Your task to perform on an android device: toggle notification dots Image 0: 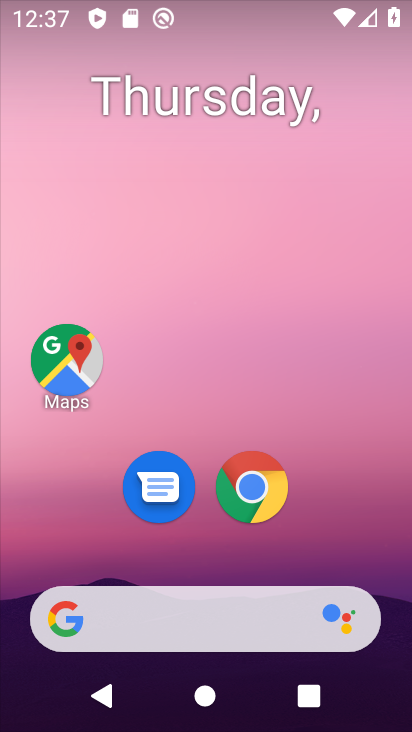
Step 0: press home button
Your task to perform on an android device: toggle notification dots Image 1: 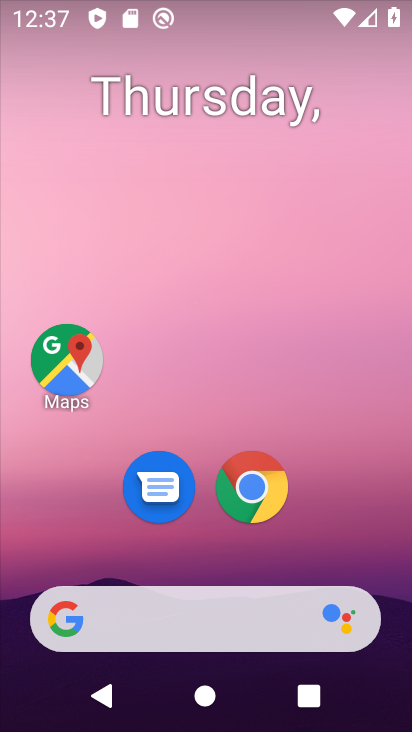
Step 1: drag from (342, 473) to (344, 65)
Your task to perform on an android device: toggle notification dots Image 2: 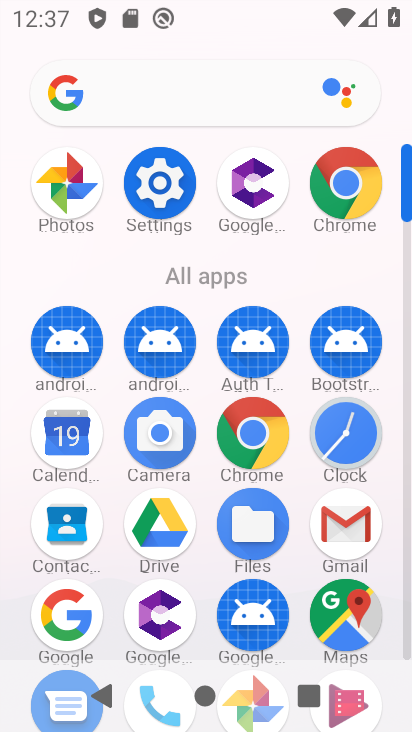
Step 2: click (158, 162)
Your task to perform on an android device: toggle notification dots Image 3: 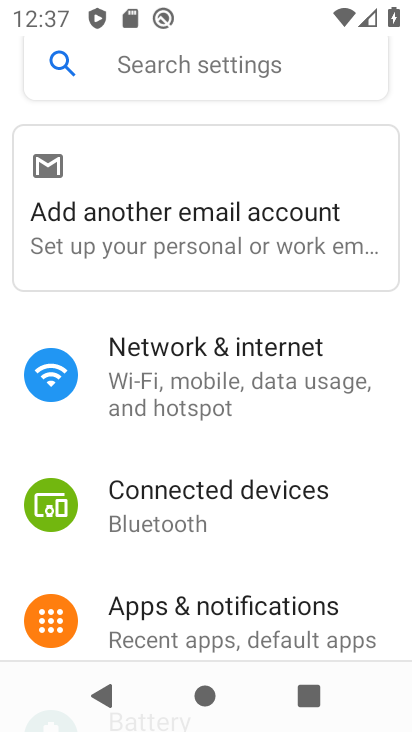
Step 3: drag from (150, 428) to (179, 310)
Your task to perform on an android device: toggle notification dots Image 4: 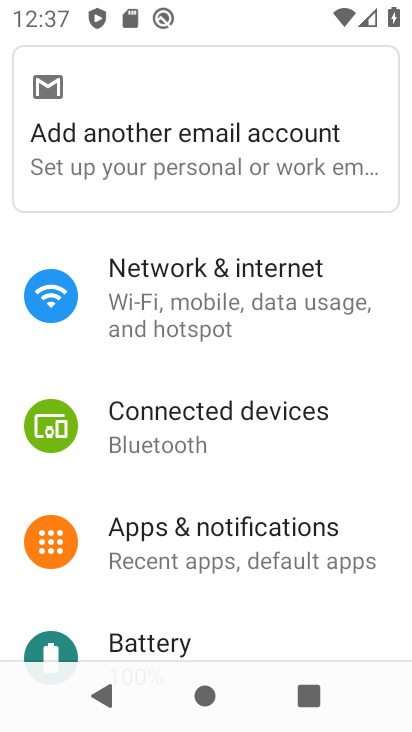
Step 4: drag from (171, 449) to (227, 347)
Your task to perform on an android device: toggle notification dots Image 5: 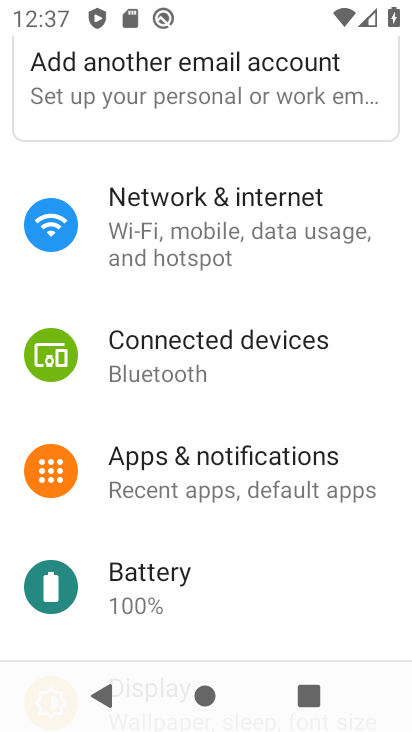
Step 5: click (212, 462)
Your task to perform on an android device: toggle notification dots Image 6: 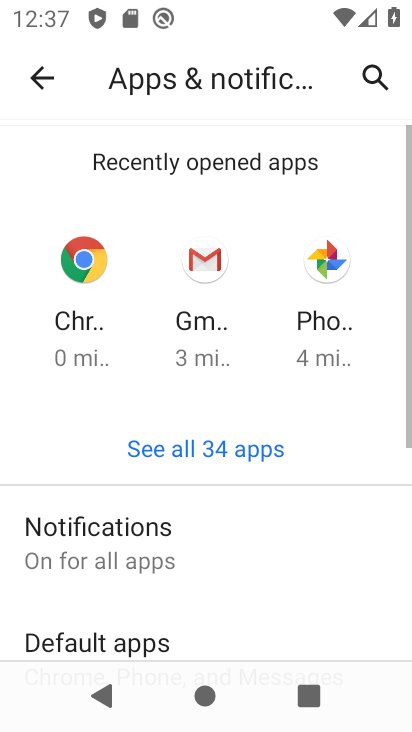
Step 6: click (212, 462)
Your task to perform on an android device: toggle notification dots Image 7: 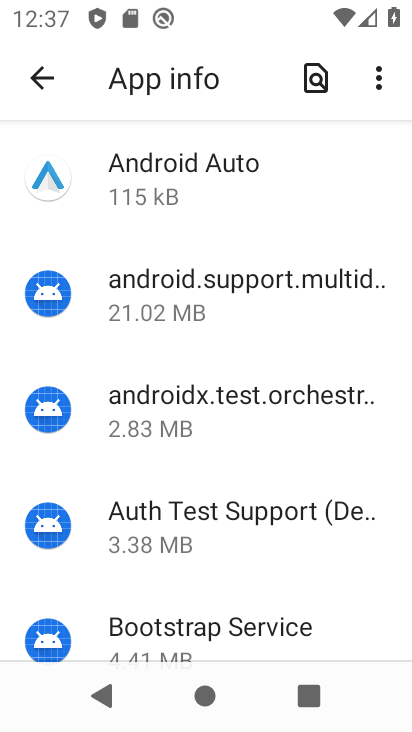
Step 7: click (40, 71)
Your task to perform on an android device: toggle notification dots Image 8: 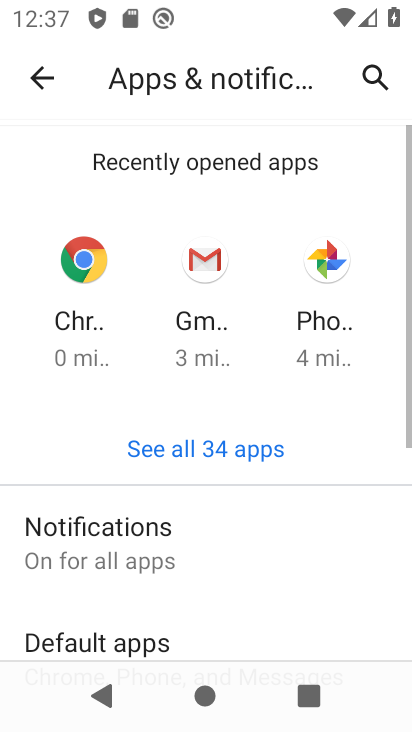
Step 8: drag from (114, 253) to (156, 106)
Your task to perform on an android device: toggle notification dots Image 9: 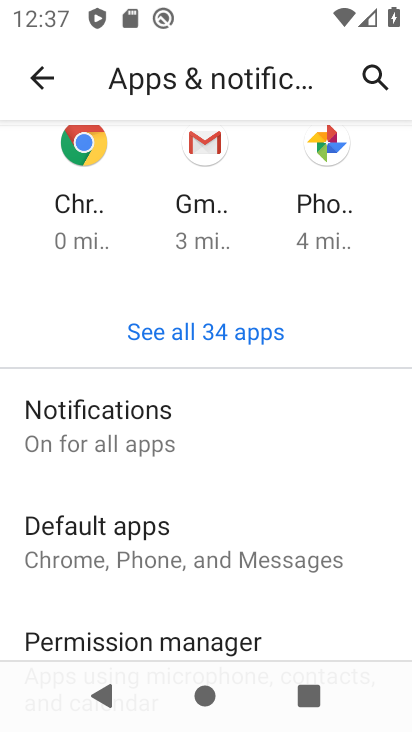
Step 9: click (155, 455)
Your task to perform on an android device: toggle notification dots Image 10: 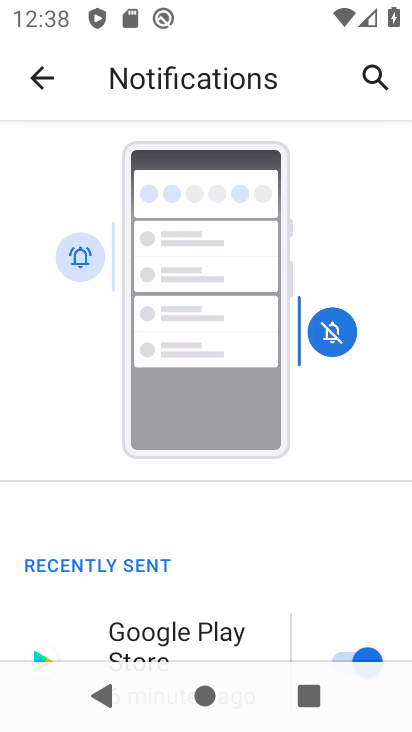
Step 10: drag from (244, 538) to (279, 305)
Your task to perform on an android device: toggle notification dots Image 11: 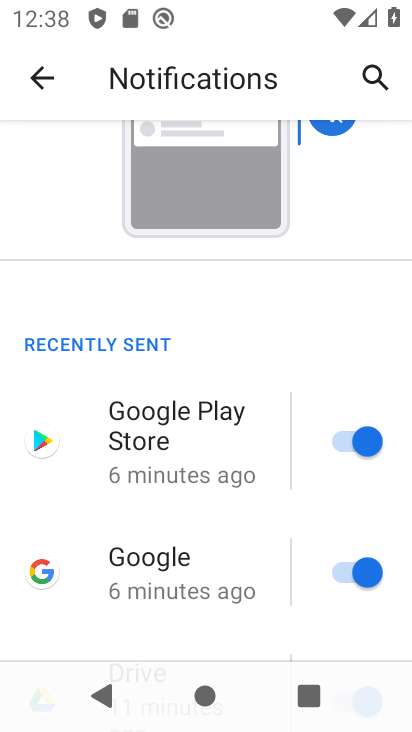
Step 11: drag from (235, 554) to (211, 273)
Your task to perform on an android device: toggle notification dots Image 12: 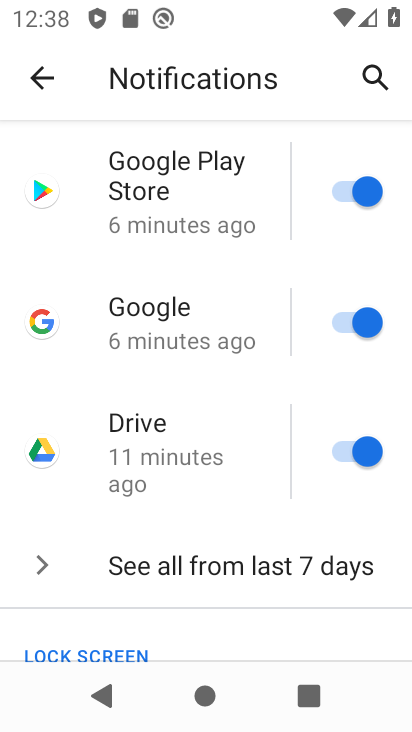
Step 12: drag from (207, 589) to (209, 62)
Your task to perform on an android device: toggle notification dots Image 13: 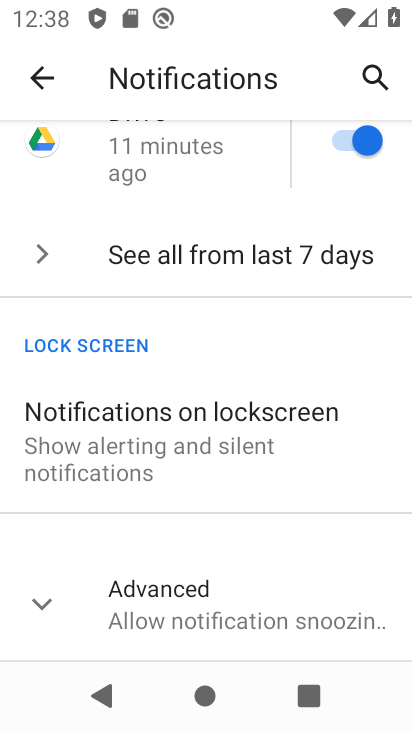
Step 13: click (264, 478)
Your task to perform on an android device: toggle notification dots Image 14: 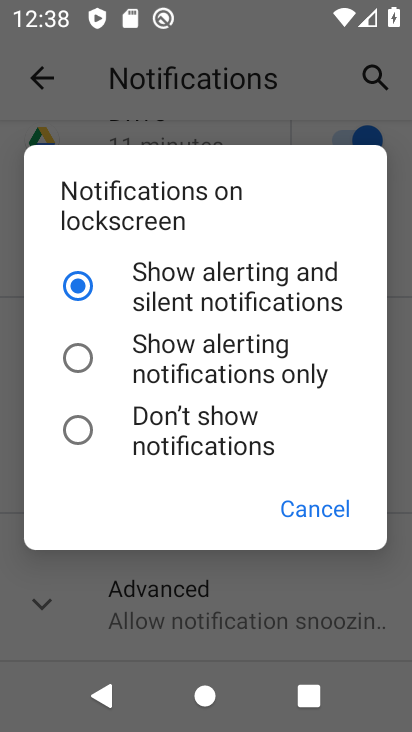
Step 14: click (304, 518)
Your task to perform on an android device: toggle notification dots Image 15: 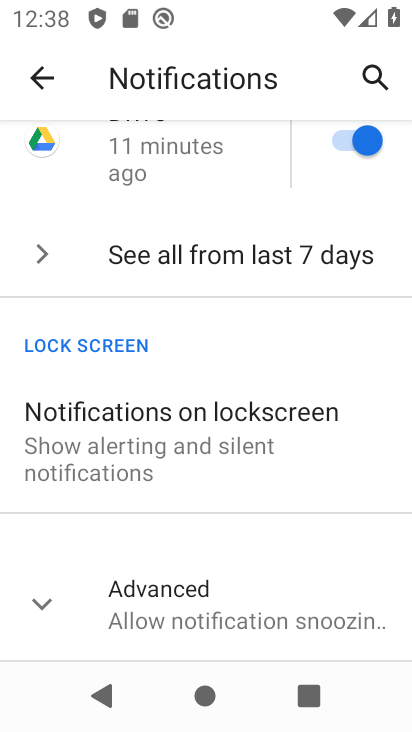
Step 15: click (258, 606)
Your task to perform on an android device: toggle notification dots Image 16: 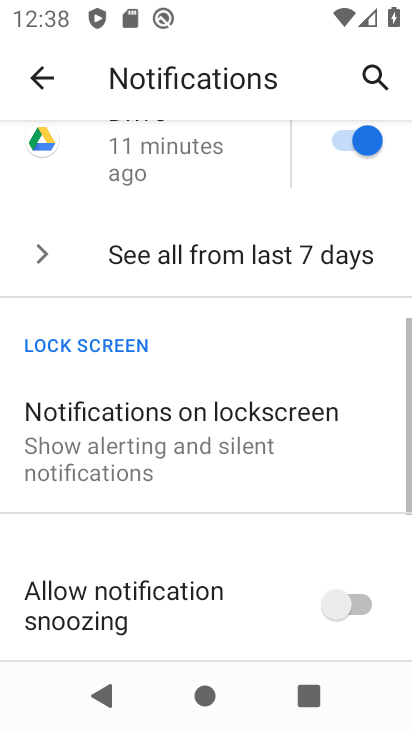
Step 16: drag from (258, 598) to (215, 284)
Your task to perform on an android device: toggle notification dots Image 17: 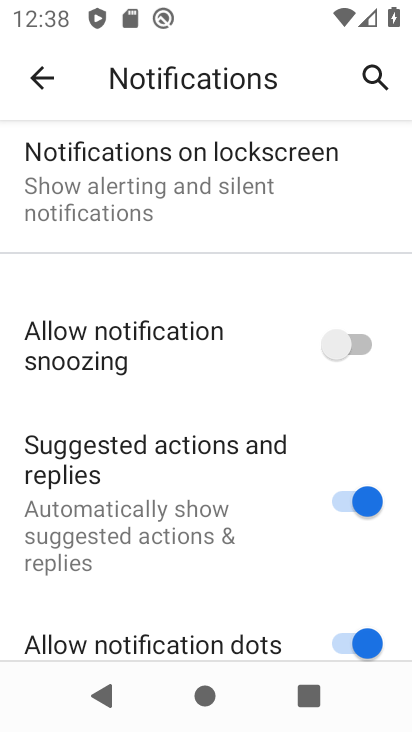
Step 17: drag from (210, 622) to (208, 486)
Your task to perform on an android device: toggle notification dots Image 18: 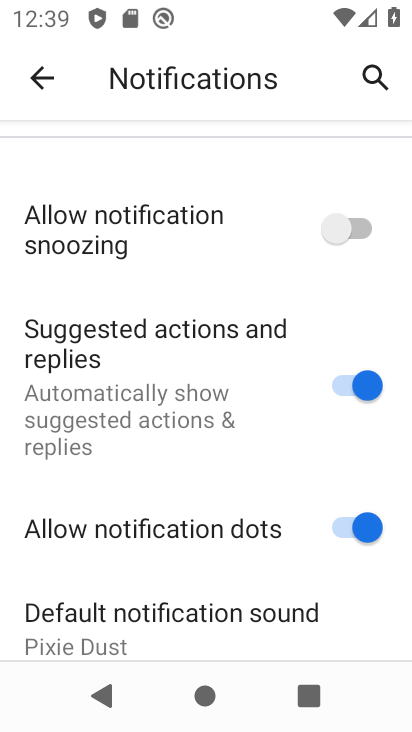
Step 18: click (259, 539)
Your task to perform on an android device: toggle notification dots Image 19: 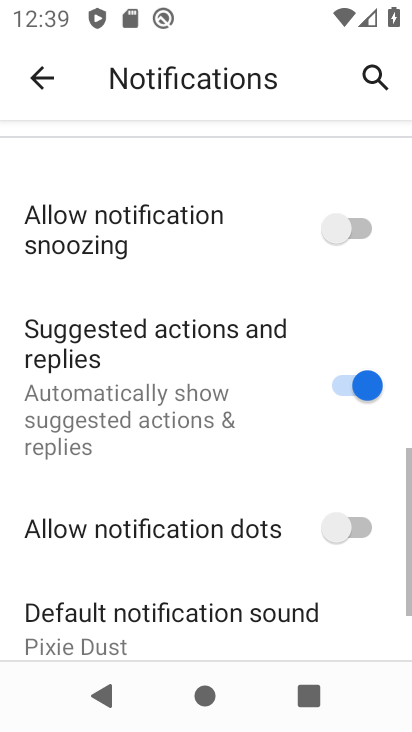
Step 19: task complete